Your task to perform on an android device: Open Youtube and go to "Your channel" Image 0: 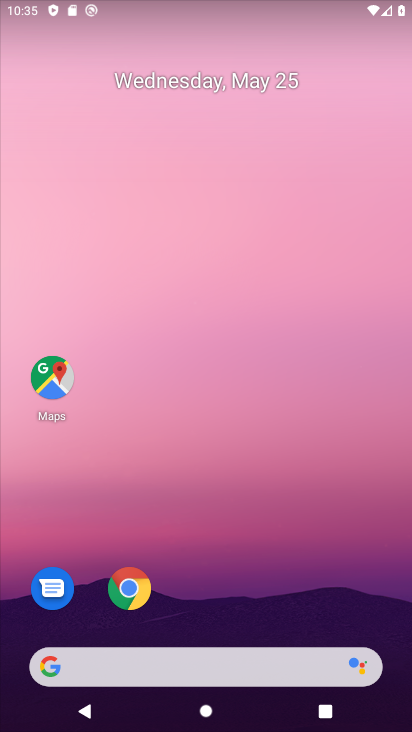
Step 0: drag from (239, 551) to (404, 206)
Your task to perform on an android device: Open Youtube and go to "Your channel" Image 1: 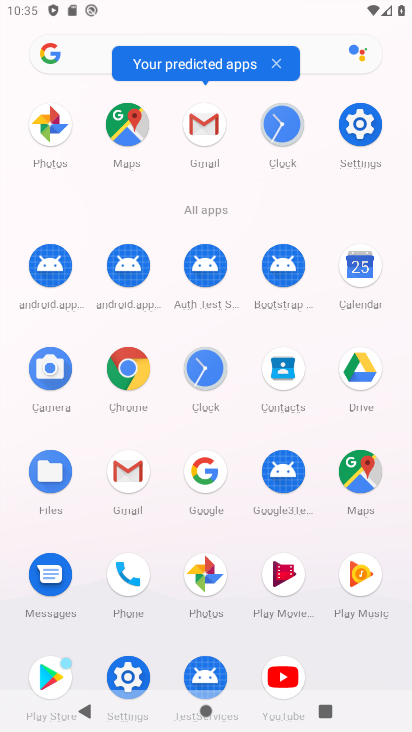
Step 1: click (283, 682)
Your task to perform on an android device: Open Youtube and go to "Your channel" Image 2: 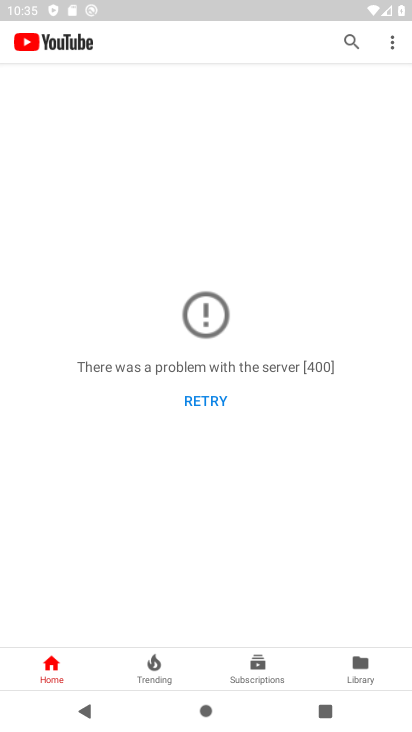
Step 2: click (343, 39)
Your task to perform on an android device: Open Youtube and go to "Your channel" Image 3: 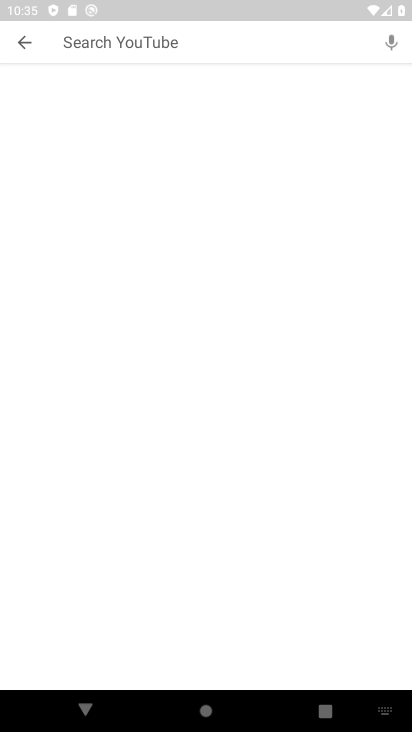
Step 3: type "your channel"
Your task to perform on an android device: Open Youtube and go to "Your channel" Image 4: 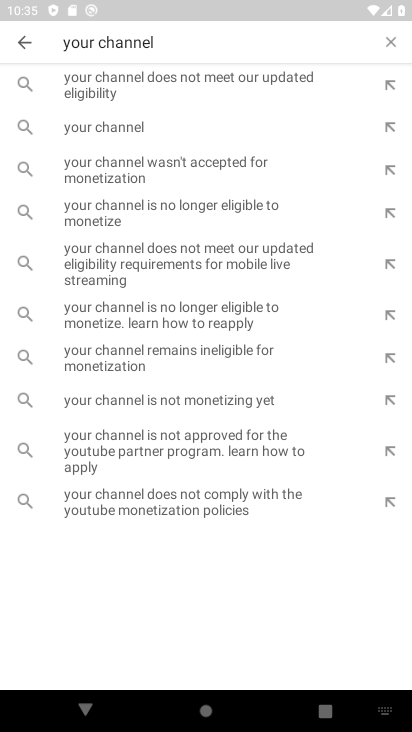
Step 4: click (120, 132)
Your task to perform on an android device: Open Youtube and go to "Your channel" Image 5: 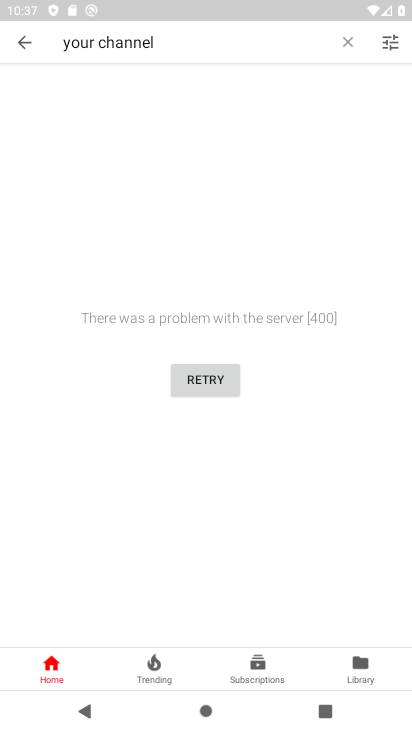
Step 5: task complete